Your task to perform on an android device: View the shopping cart on walmart. Add razer naga to the cart on walmart, then select checkout. Image 0: 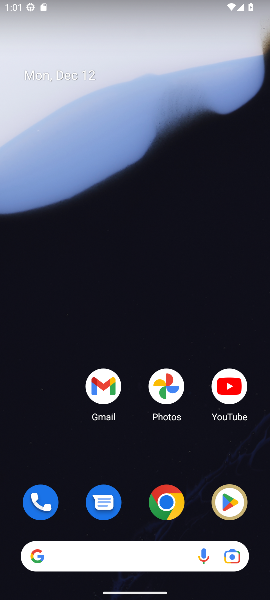
Step 0: click (174, 498)
Your task to perform on an android device: View the shopping cart on walmart. Add razer naga to the cart on walmart, then select checkout. Image 1: 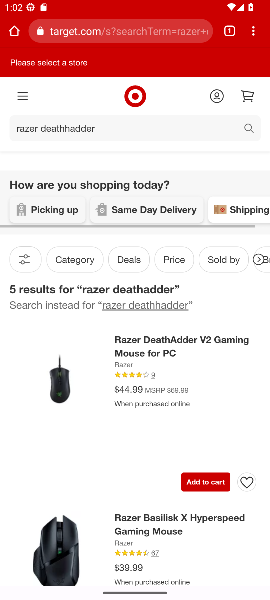
Step 1: click (187, 488)
Your task to perform on an android device: View the shopping cart on walmart. Add razer naga to the cart on walmart, then select checkout. Image 2: 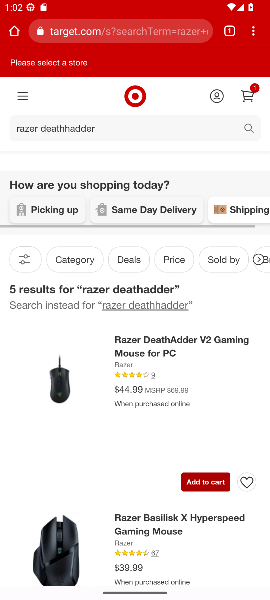
Step 2: task complete